Your task to perform on an android device: Clear all items from cart on bestbuy. Add macbook pro 15 inch to the cart on bestbuy Image 0: 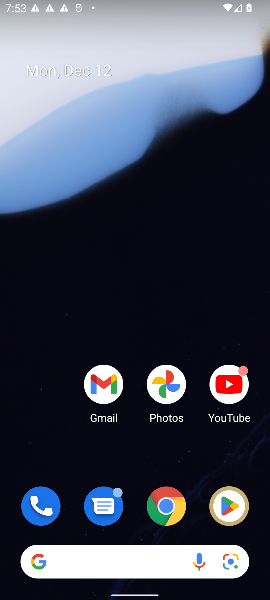
Step 0: click (159, 560)
Your task to perform on an android device: Clear all items from cart on bestbuy. Add macbook pro 15 inch to the cart on bestbuy Image 1: 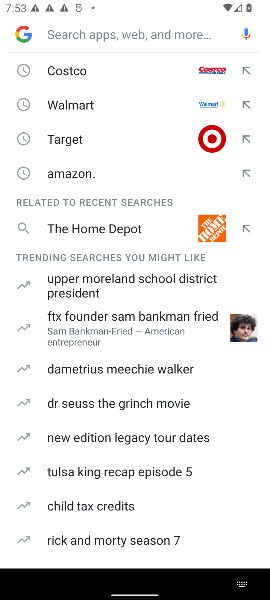
Step 1: type "bestbuy"
Your task to perform on an android device: Clear all items from cart on bestbuy. Add macbook pro 15 inch to the cart on bestbuy Image 2: 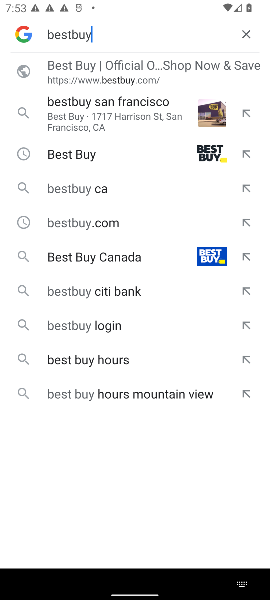
Step 2: click (132, 158)
Your task to perform on an android device: Clear all items from cart on bestbuy. Add macbook pro 15 inch to the cart on bestbuy Image 3: 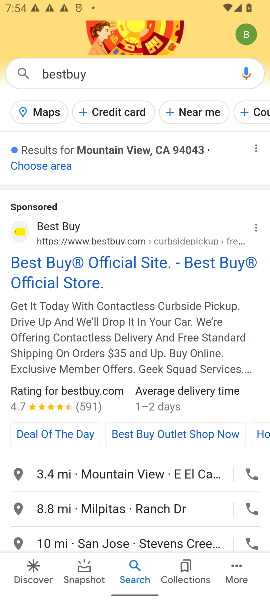
Step 3: click (71, 270)
Your task to perform on an android device: Clear all items from cart on bestbuy. Add macbook pro 15 inch to the cart on bestbuy Image 4: 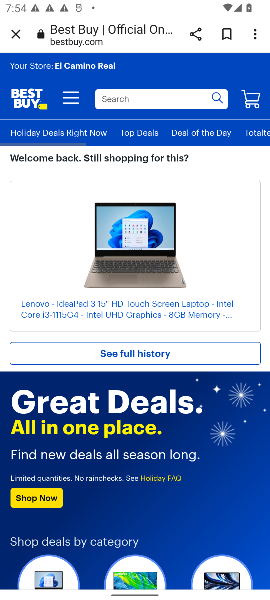
Step 4: click (154, 96)
Your task to perform on an android device: Clear all items from cart on bestbuy. Add macbook pro 15 inch to the cart on bestbuy Image 5: 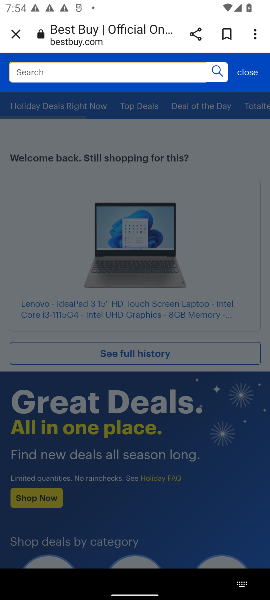
Step 5: type "macbook pro 15"
Your task to perform on an android device: Clear all items from cart on bestbuy. Add macbook pro 15 inch to the cart on bestbuy Image 6: 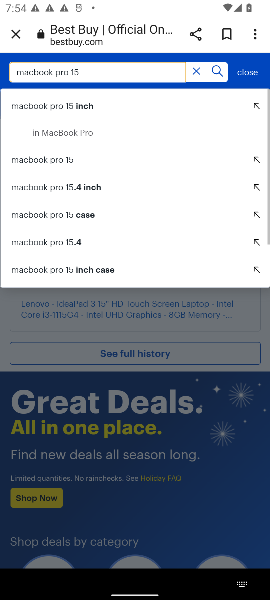
Step 6: click (70, 114)
Your task to perform on an android device: Clear all items from cart on bestbuy. Add macbook pro 15 inch to the cart on bestbuy Image 7: 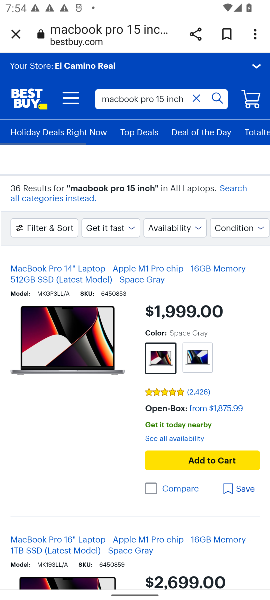
Step 7: click (205, 460)
Your task to perform on an android device: Clear all items from cart on bestbuy. Add macbook pro 15 inch to the cart on bestbuy Image 8: 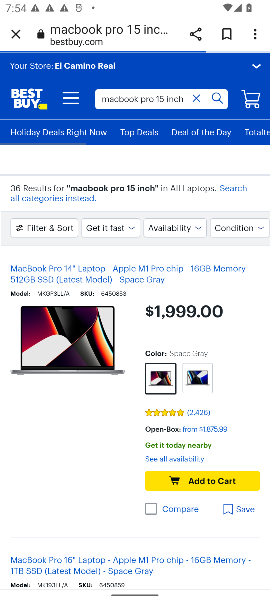
Step 8: task complete